Your task to perform on an android device: What's the weather going to be this weekend? Image 0: 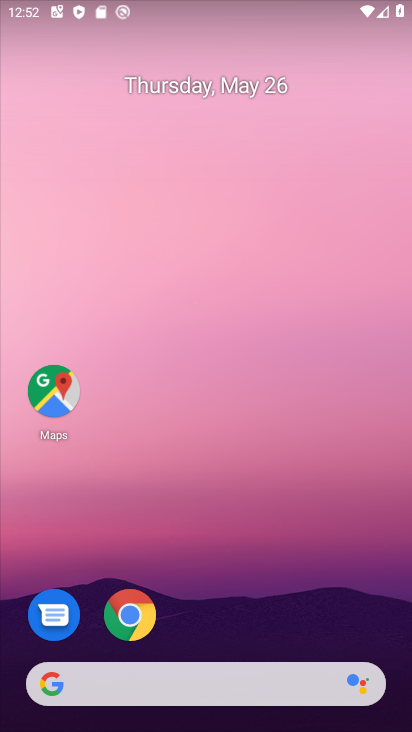
Step 0: click (204, 688)
Your task to perform on an android device: What's the weather going to be this weekend? Image 1: 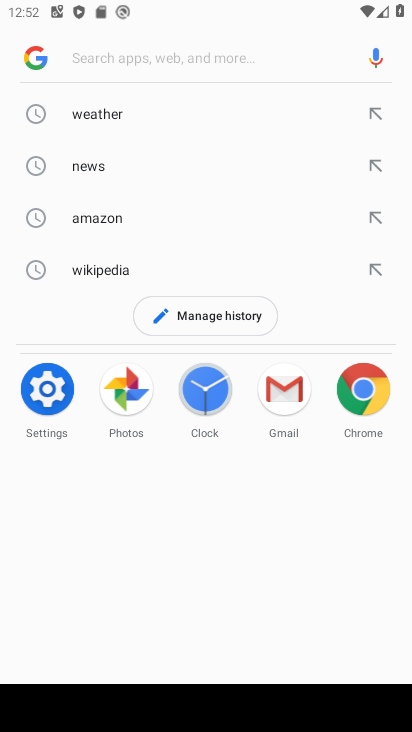
Step 1: click (108, 115)
Your task to perform on an android device: What's the weather going to be this weekend? Image 2: 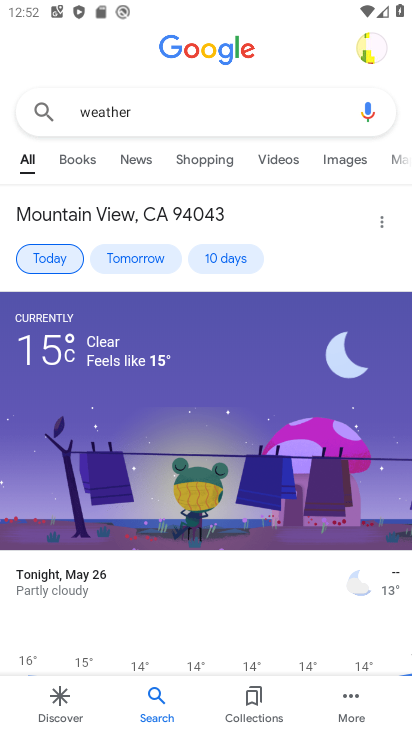
Step 2: click (219, 257)
Your task to perform on an android device: What's the weather going to be this weekend? Image 3: 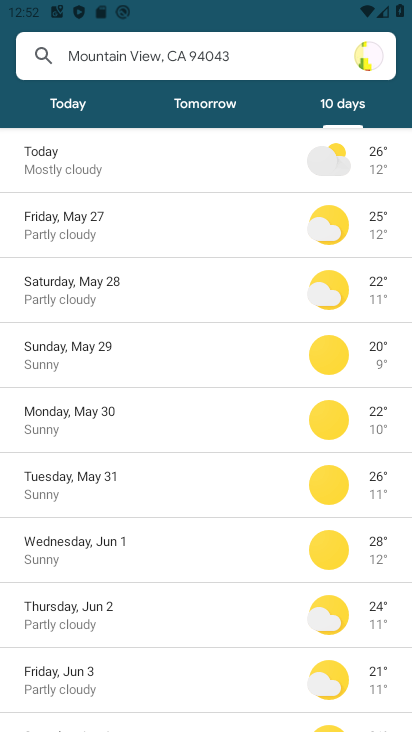
Step 3: task complete